Your task to perform on an android device: turn on wifi Image 0: 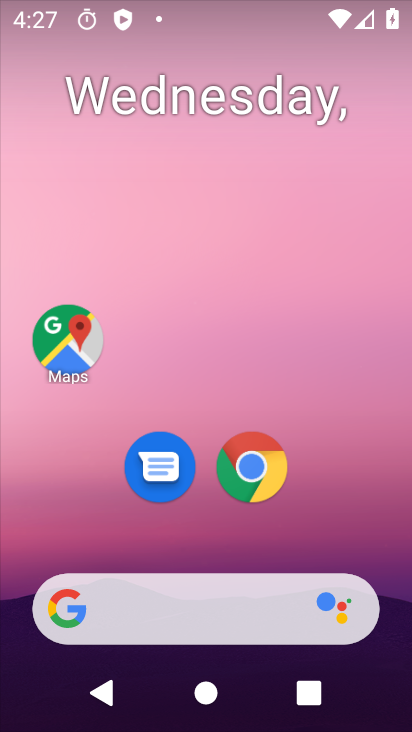
Step 0: drag from (349, 423) to (302, 63)
Your task to perform on an android device: turn on wifi Image 1: 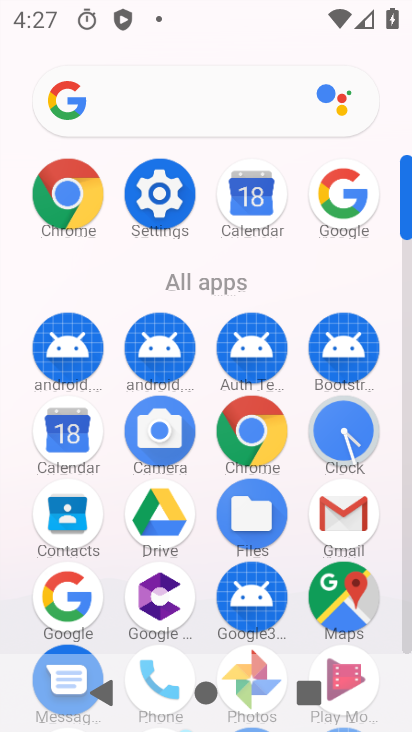
Step 1: click (163, 196)
Your task to perform on an android device: turn on wifi Image 2: 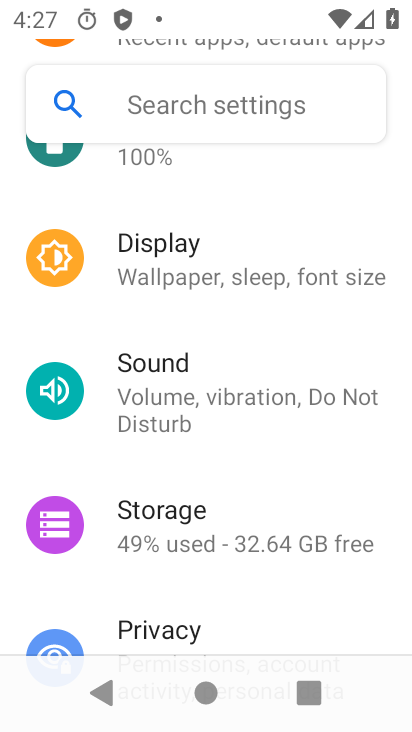
Step 2: drag from (313, 175) to (313, 478)
Your task to perform on an android device: turn on wifi Image 3: 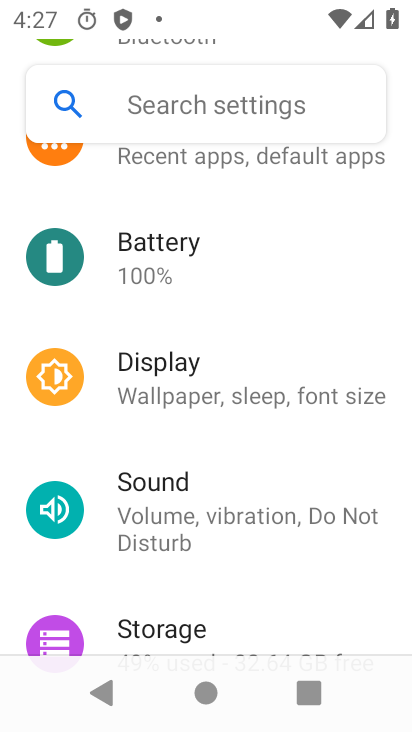
Step 3: drag from (307, 251) to (303, 462)
Your task to perform on an android device: turn on wifi Image 4: 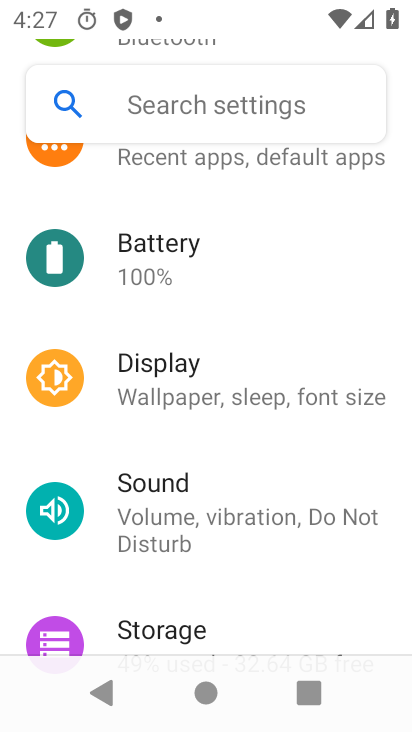
Step 4: drag from (292, 436) to (293, 470)
Your task to perform on an android device: turn on wifi Image 5: 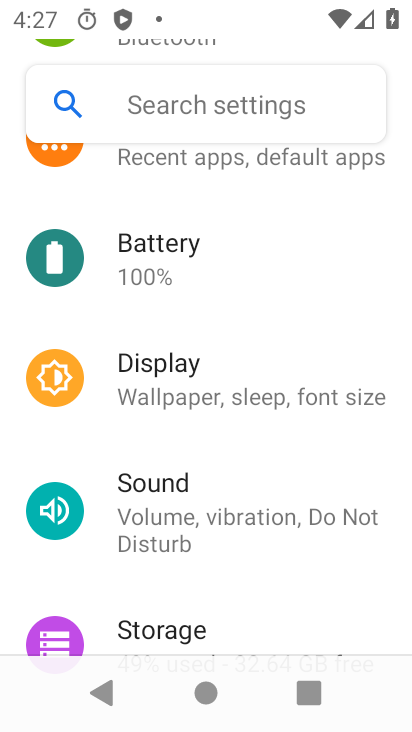
Step 5: drag from (353, 233) to (375, 563)
Your task to perform on an android device: turn on wifi Image 6: 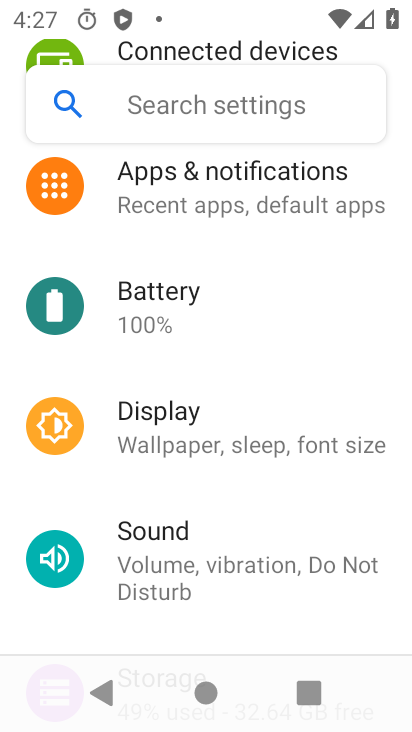
Step 6: drag from (351, 262) to (333, 530)
Your task to perform on an android device: turn on wifi Image 7: 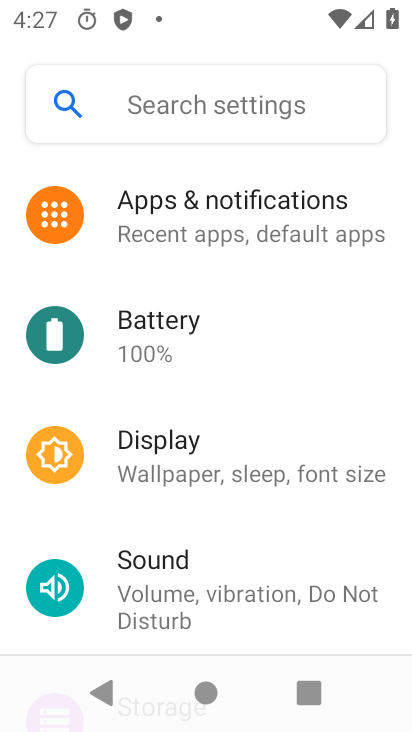
Step 7: click (368, 382)
Your task to perform on an android device: turn on wifi Image 8: 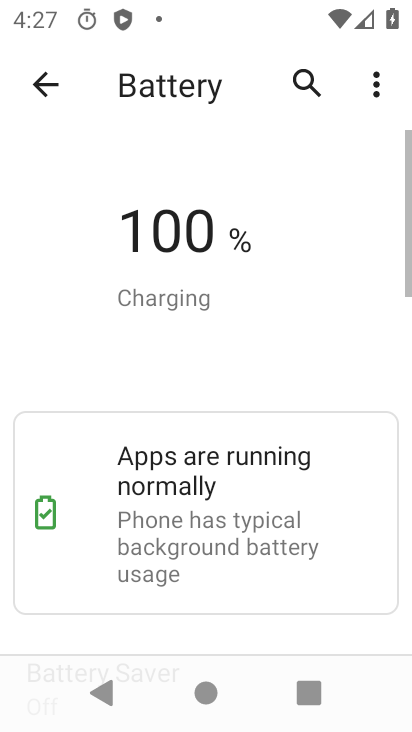
Step 8: click (51, 81)
Your task to perform on an android device: turn on wifi Image 9: 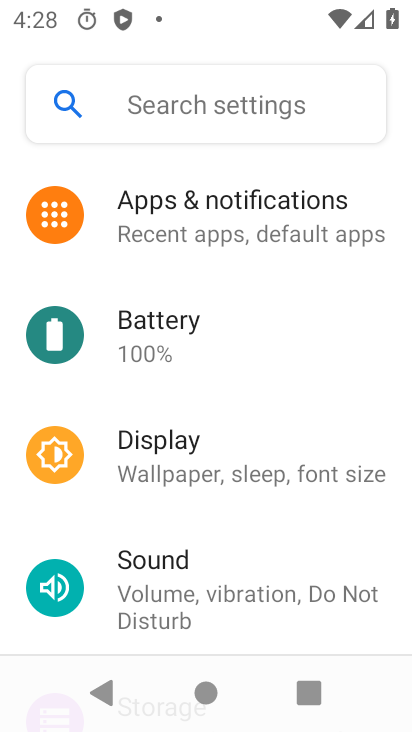
Step 9: drag from (385, 175) to (367, 645)
Your task to perform on an android device: turn on wifi Image 10: 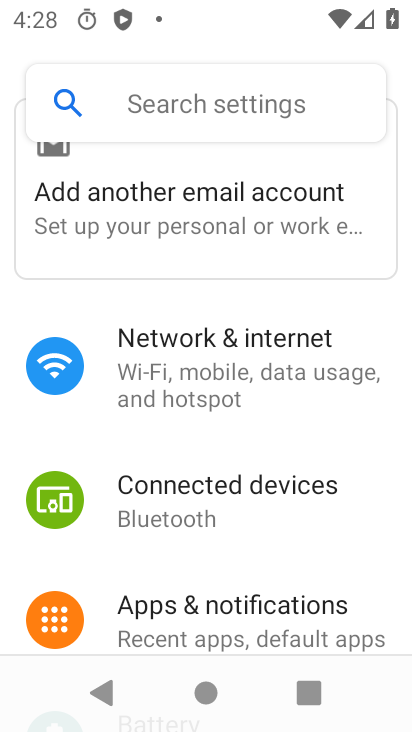
Step 10: click (205, 360)
Your task to perform on an android device: turn on wifi Image 11: 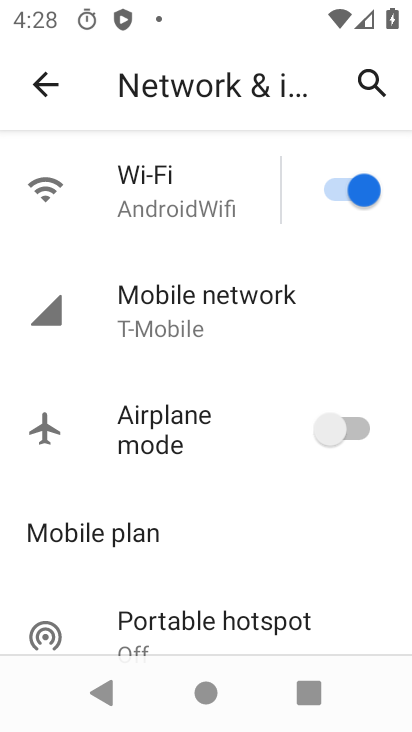
Step 11: task complete